Your task to perform on an android device: Search for vegetarian restaurants on Maps Image 0: 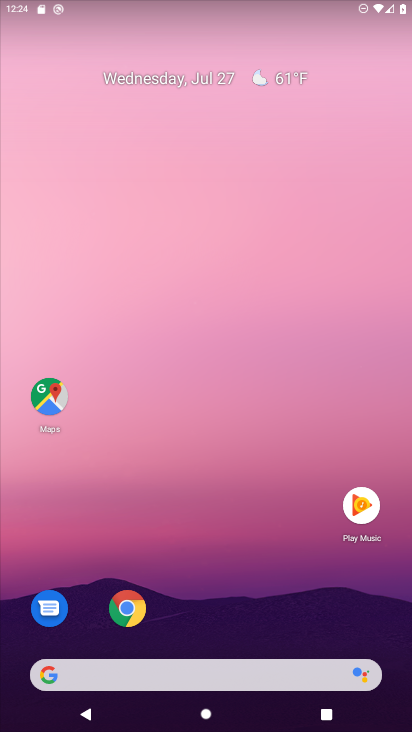
Step 0: press home button
Your task to perform on an android device: Search for vegetarian restaurants on Maps Image 1: 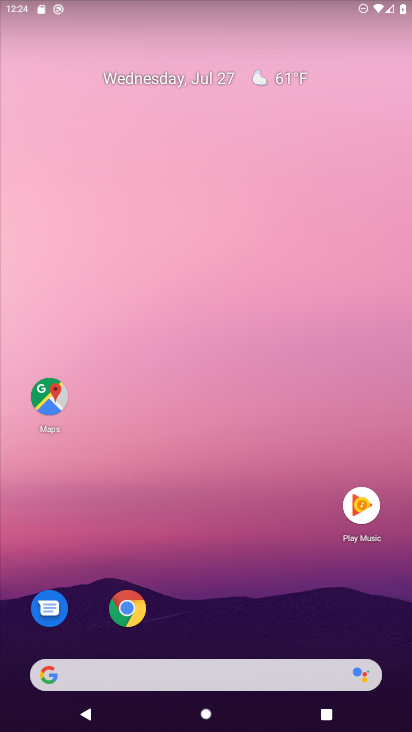
Step 1: drag from (287, 586) to (304, 190)
Your task to perform on an android device: Search for vegetarian restaurants on Maps Image 2: 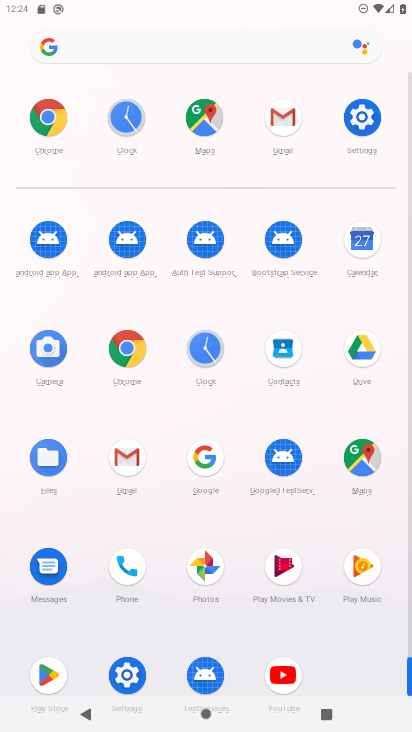
Step 2: click (362, 457)
Your task to perform on an android device: Search for vegetarian restaurants on Maps Image 3: 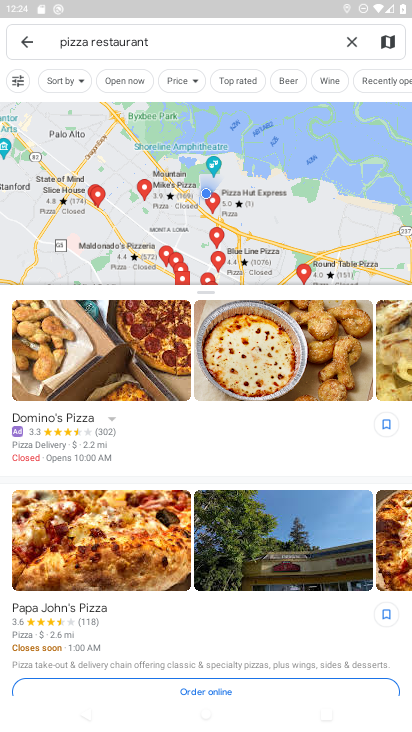
Step 3: press back button
Your task to perform on an android device: Search for vegetarian restaurants on Maps Image 4: 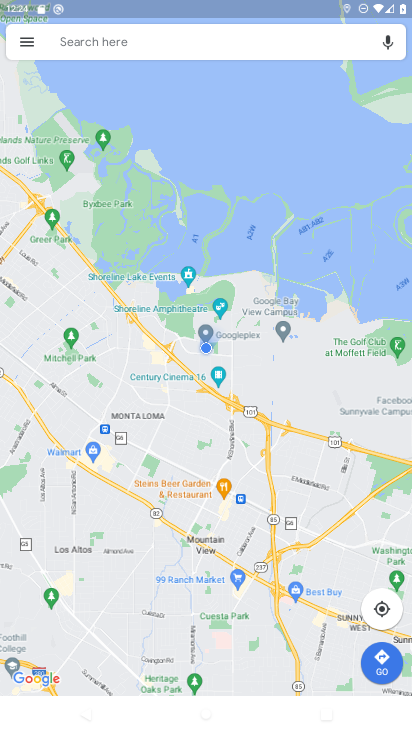
Step 4: click (320, 44)
Your task to perform on an android device: Search for vegetarian restaurants on Maps Image 5: 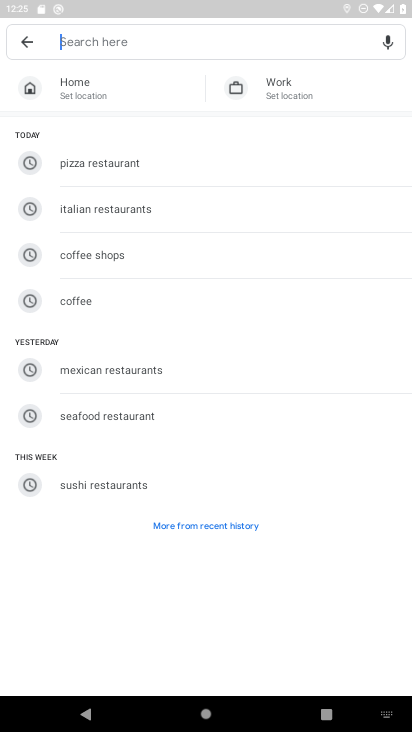
Step 5: type "vegetrain restaurants"
Your task to perform on an android device: Search for vegetarian restaurants on Maps Image 6: 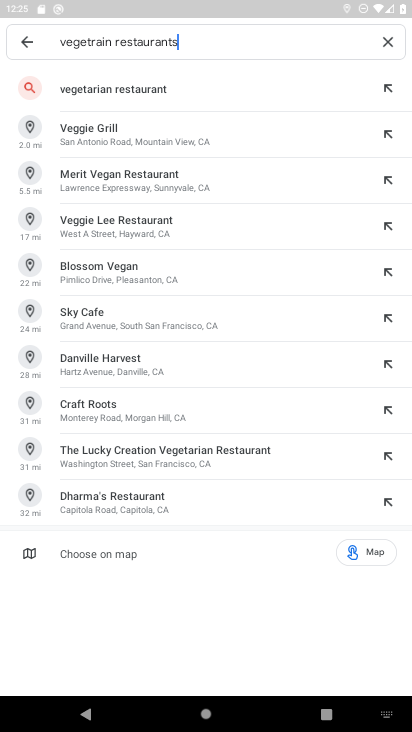
Step 6: click (232, 86)
Your task to perform on an android device: Search for vegetarian restaurants on Maps Image 7: 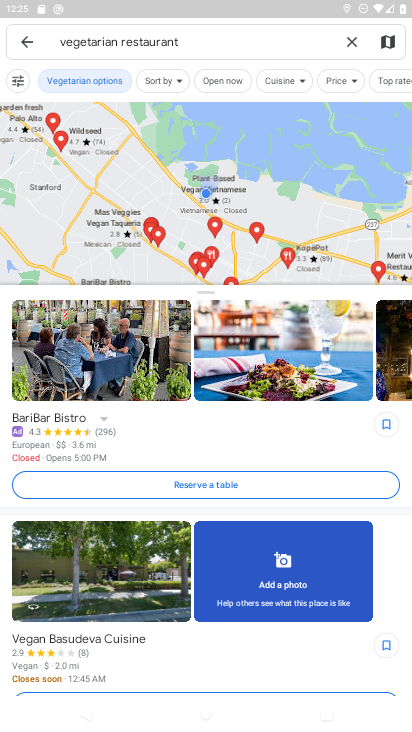
Step 7: task complete